Your task to perform on an android device: turn smart compose on in the gmail app Image 0: 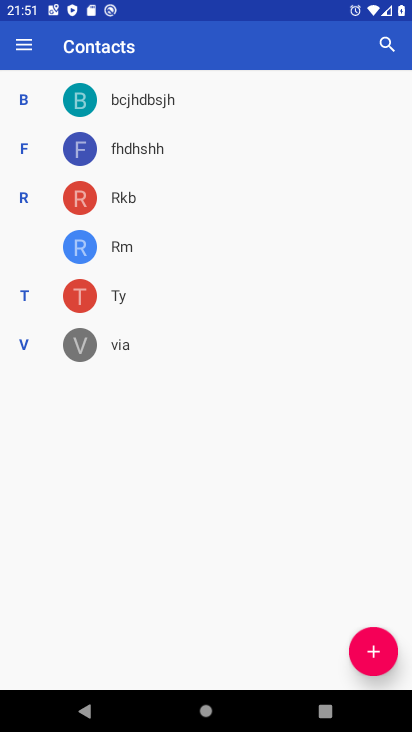
Step 0: press home button
Your task to perform on an android device: turn smart compose on in the gmail app Image 1: 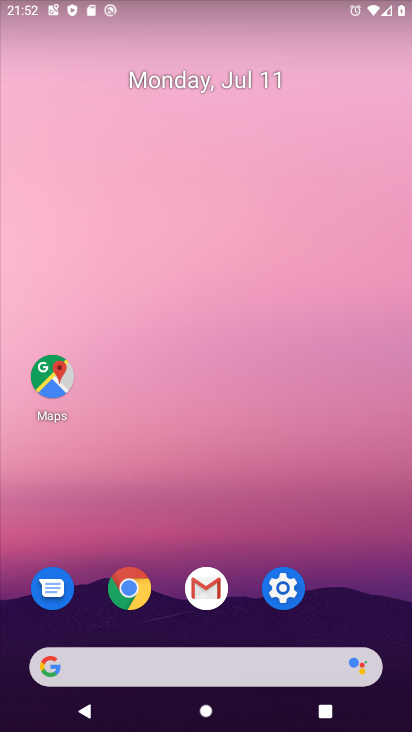
Step 1: drag from (238, 677) to (255, 257)
Your task to perform on an android device: turn smart compose on in the gmail app Image 2: 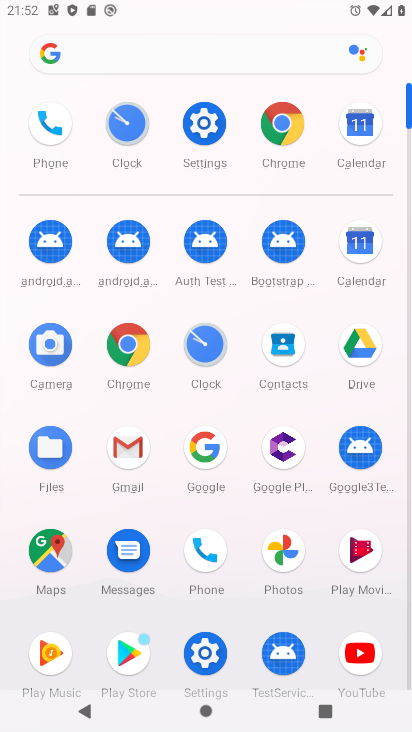
Step 2: click (120, 439)
Your task to perform on an android device: turn smart compose on in the gmail app Image 3: 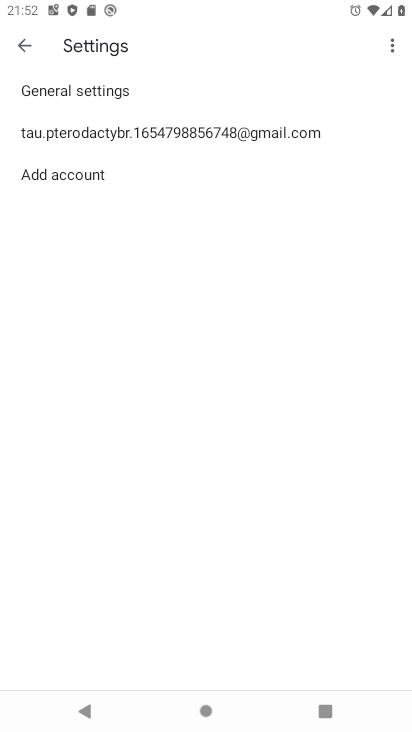
Step 3: click (139, 138)
Your task to perform on an android device: turn smart compose on in the gmail app Image 4: 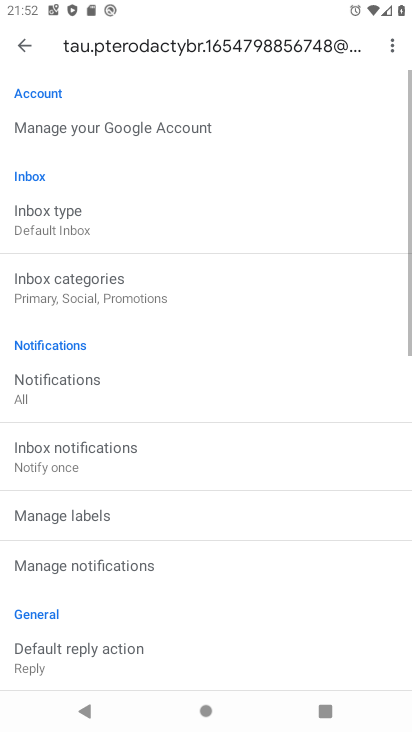
Step 4: drag from (236, 515) to (242, 162)
Your task to perform on an android device: turn smart compose on in the gmail app Image 5: 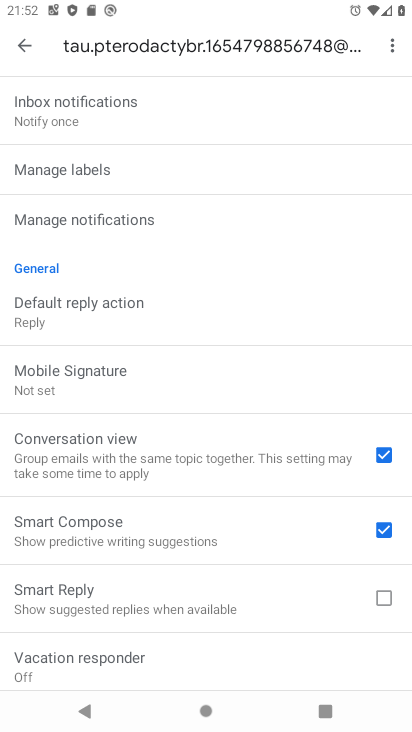
Step 5: click (387, 537)
Your task to perform on an android device: turn smart compose on in the gmail app Image 6: 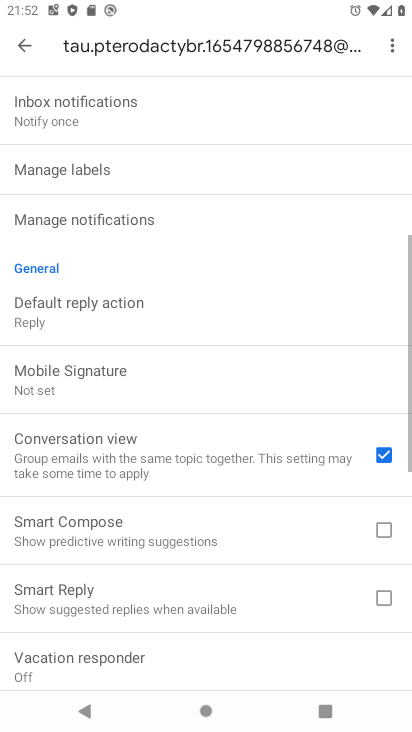
Step 6: click (390, 534)
Your task to perform on an android device: turn smart compose on in the gmail app Image 7: 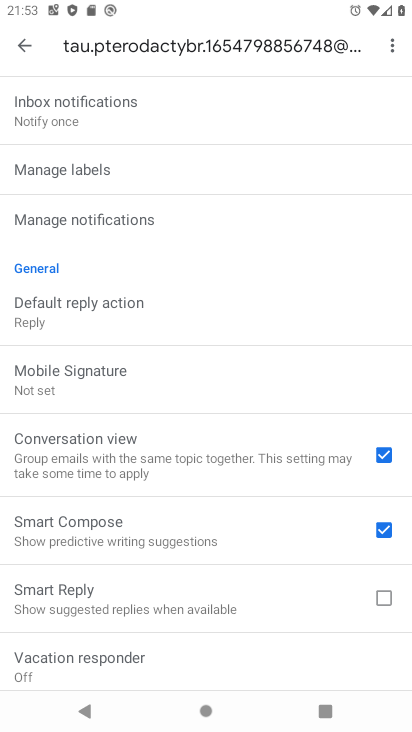
Step 7: task complete